Your task to perform on an android device: Open calendar and show me the third week of next month Image 0: 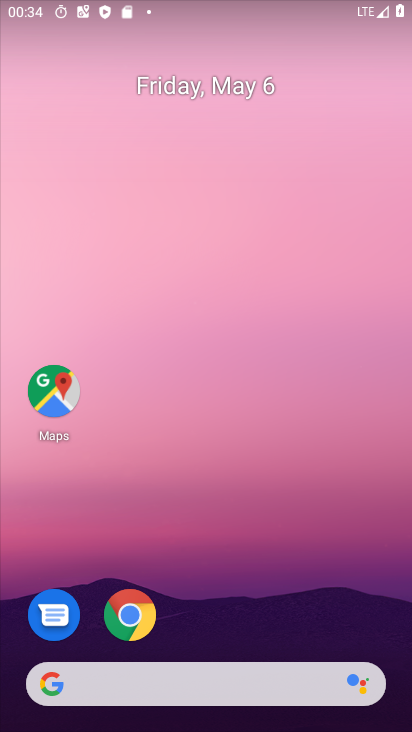
Step 0: drag from (244, 606) to (285, 138)
Your task to perform on an android device: Open calendar and show me the third week of next month Image 1: 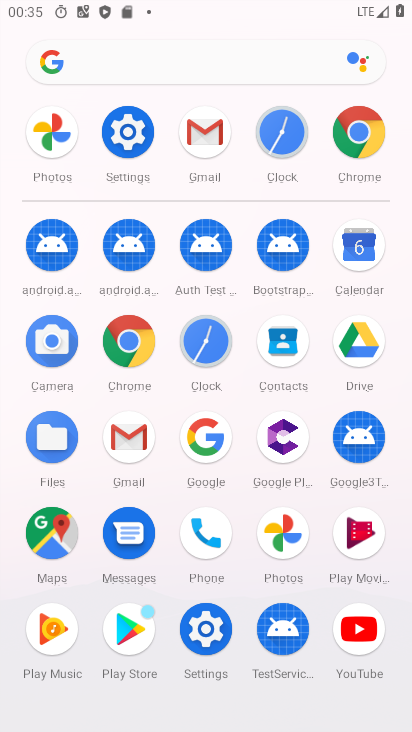
Step 1: click (356, 242)
Your task to perform on an android device: Open calendar and show me the third week of next month Image 2: 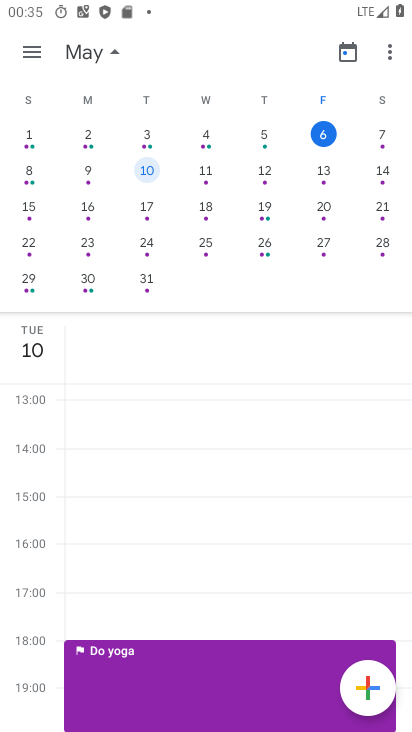
Step 2: drag from (345, 279) to (4, 218)
Your task to perform on an android device: Open calendar and show me the third week of next month Image 3: 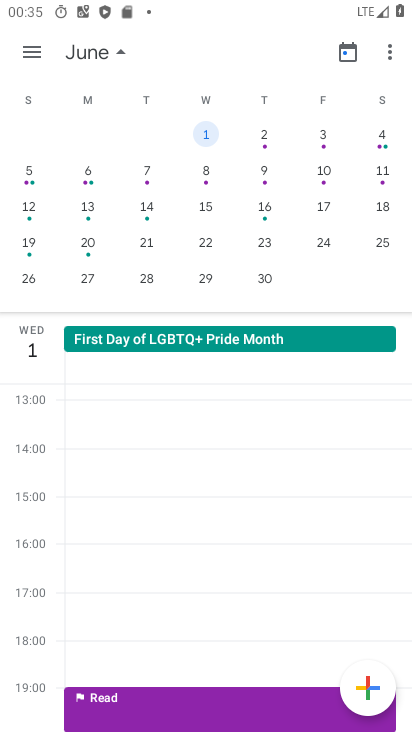
Step 3: click (205, 213)
Your task to perform on an android device: Open calendar and show me the third week of next month Image 4: 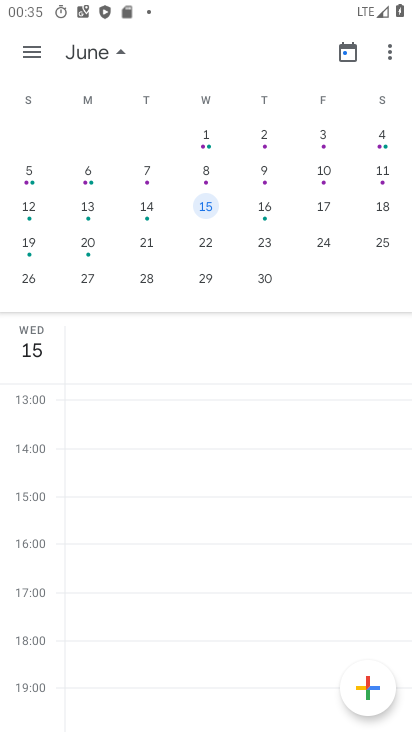
Step 4: task complete